Your task to perform on an android device: clear history in the chrome app Image 0: 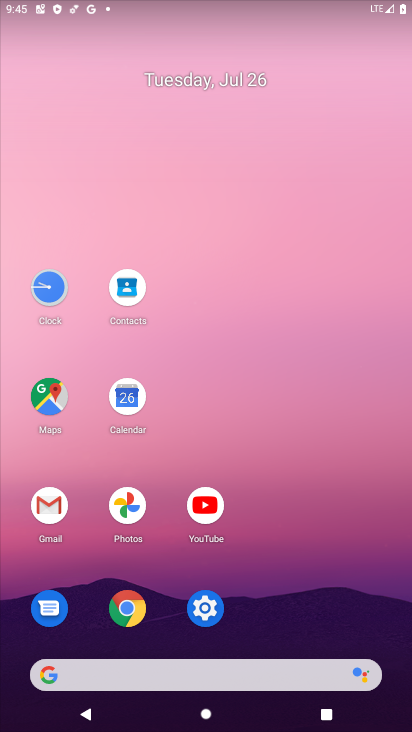
Step 0: click (132, 603)
Your task to perform on an android device: clear history in the chrome app Image 1: 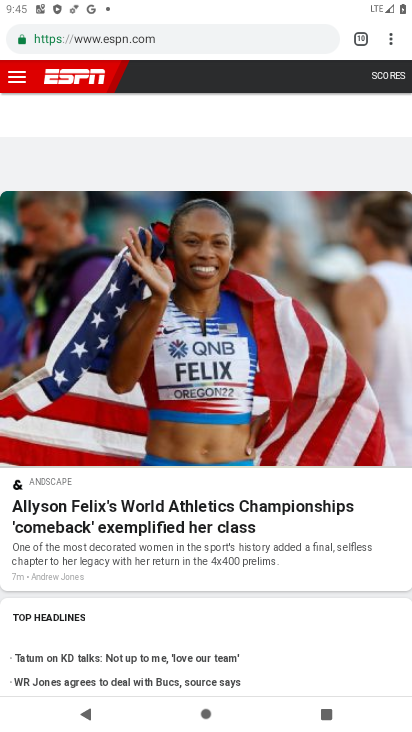
Step 1: click (386, 38)
Your task to perform on an android device: clear history in the chrome app Image 2: 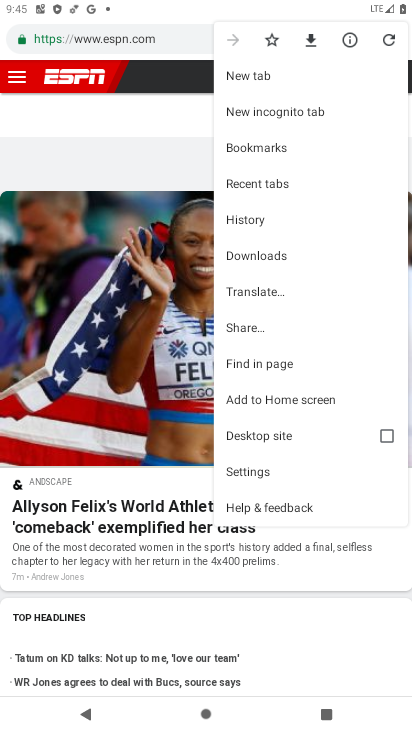
Step 2: click (255, 216)
Your task to perform on an android device: clear history in the chrome app Image 3: 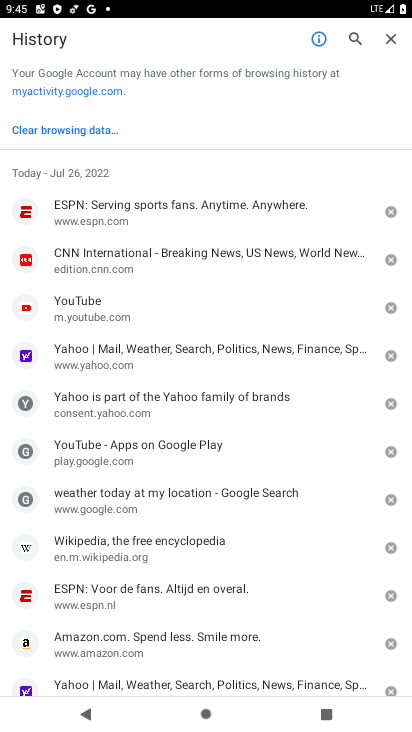
Step 3: click (56, 130)
Your task to perform on an android device: clear history in the chrome app Image 4: 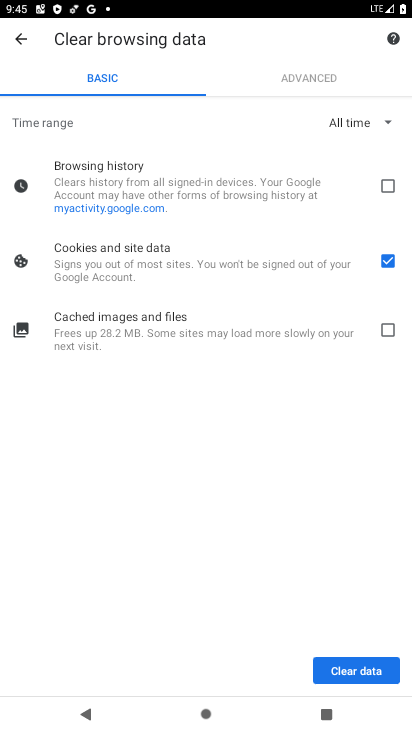
Step 4: click (391, 172)
Your task to perform on an android device: clear history in the chrome app Image 5: 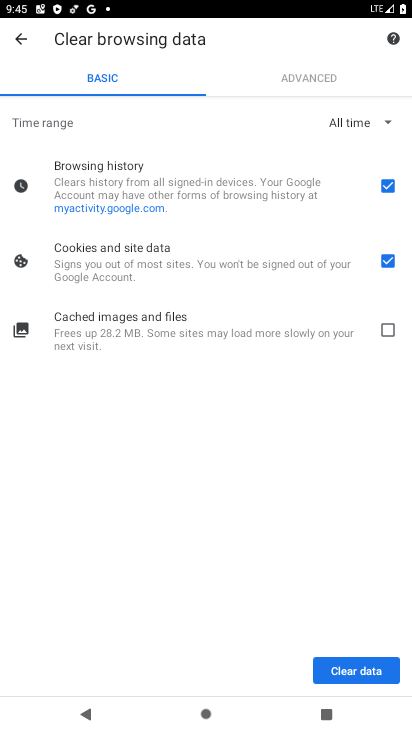
Step 5: click (385, 259)
Your task to perform on an android device: clear history in the chrome app Image 6: 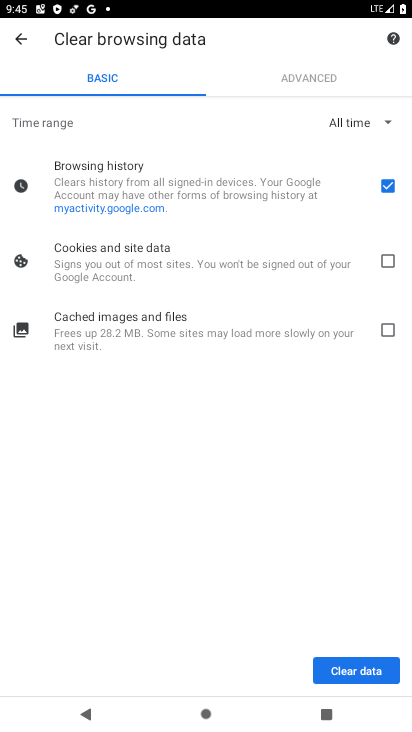
Step 6: click (356, 669)
Your task to perform on an android device: clear history in the chrome app Image 7: 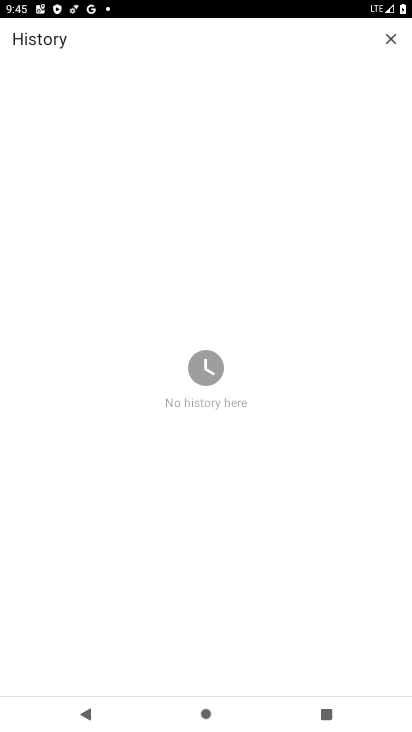
Step 7: task complete